Your task to perform on an android device: Search for pizza restaurants on Maps Image 0: 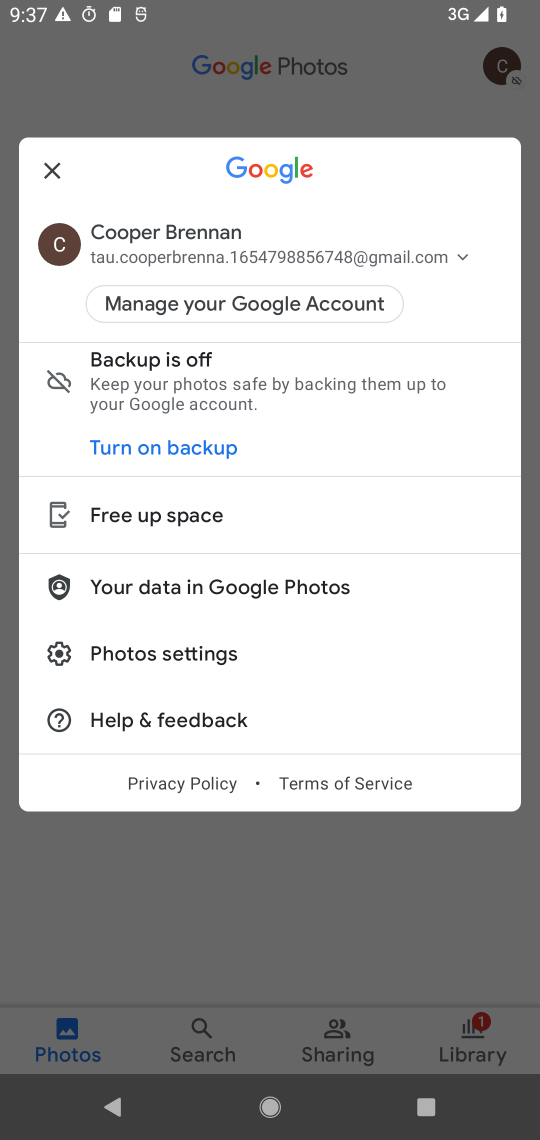
Step 0: press home button
Your task to perform on an android device: Search for pizza restaurants on Maps Image 1: 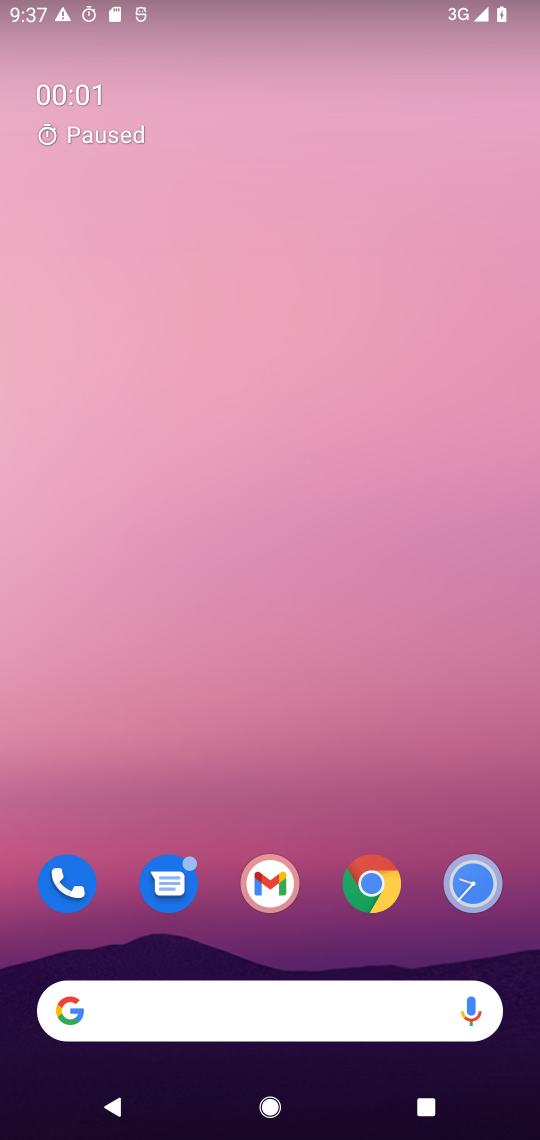
Step 1: drag from (25, 1110) to (228, 754)
Your task to perform on an android device: Search for pizza restaurants on Maps Image 2: 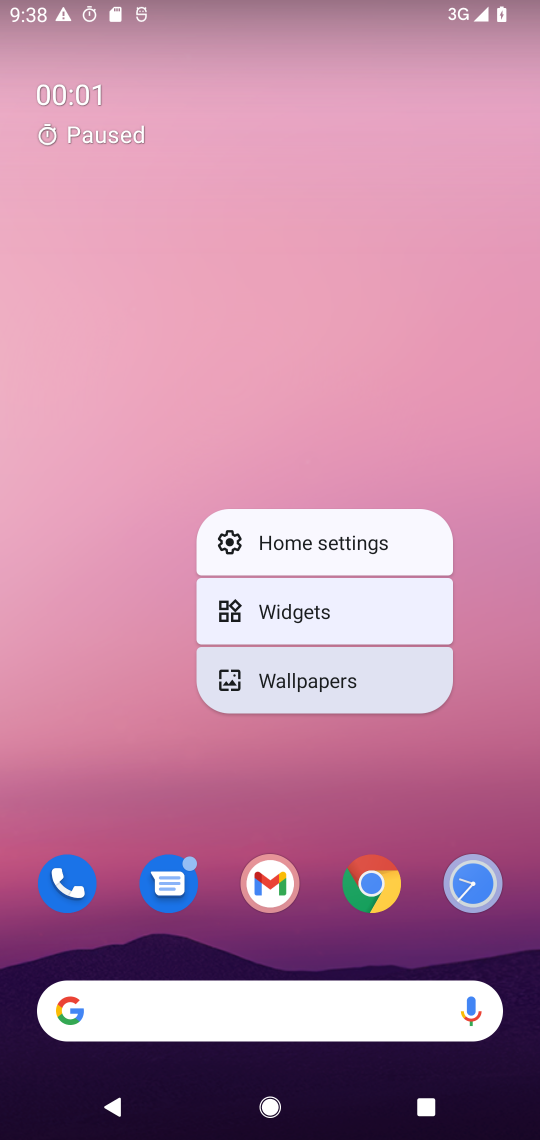
Step 2: drag from (63, 1060) to (0, 88)
Your task to perform on an android device: Search for pizza restaurants on Maps Image 3: 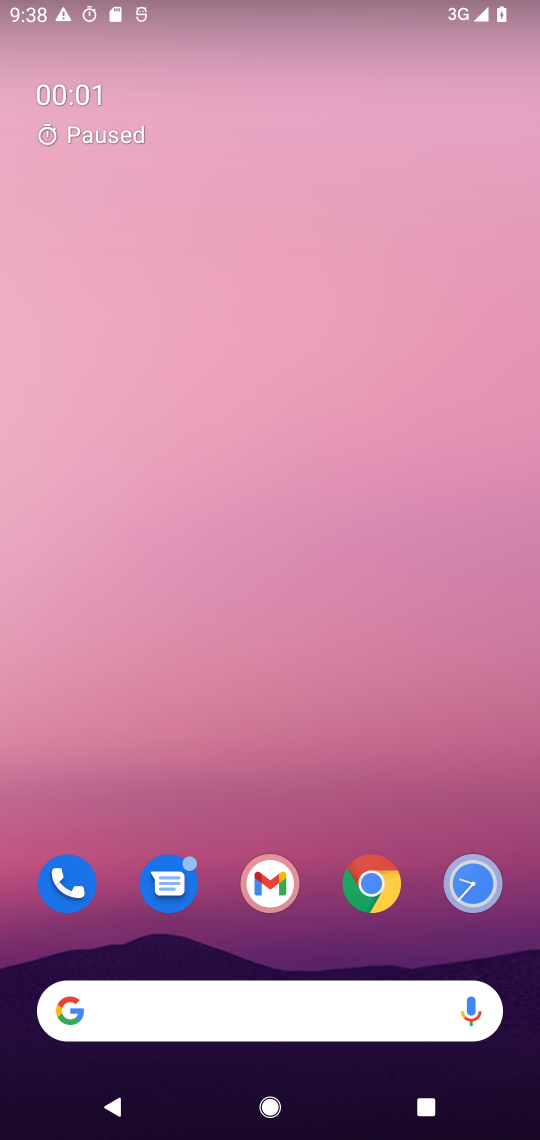
Step 3: drag from (65, 1115) to (526, 314)
Your task to perform on an android device: Search for pizza restaurants on Maps Image 4: 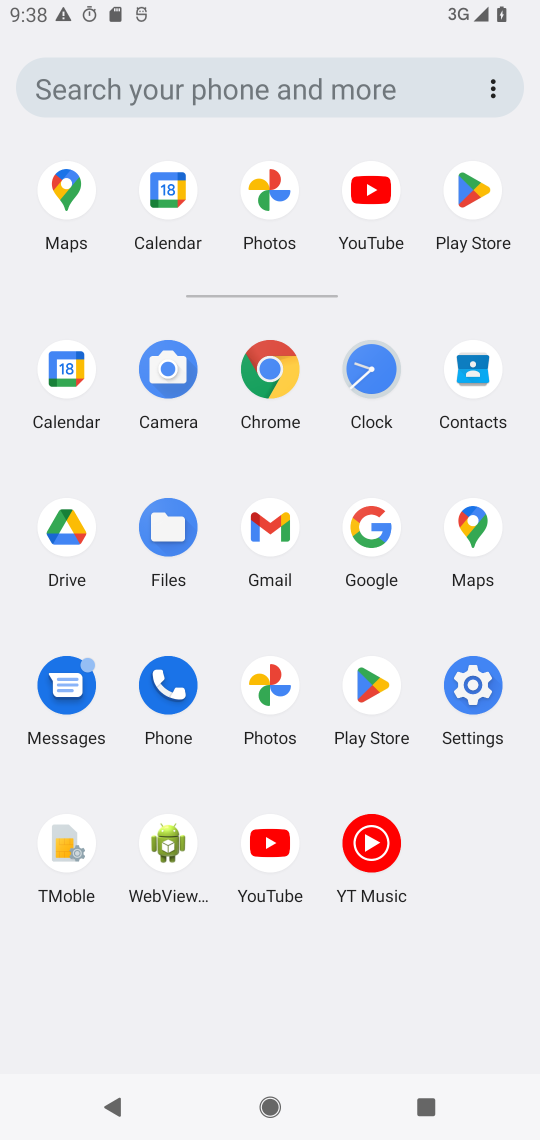
Step 4: click (463, 539)
Your task to perform on an android device: Search for pizza restaurants on Maps Image 5: 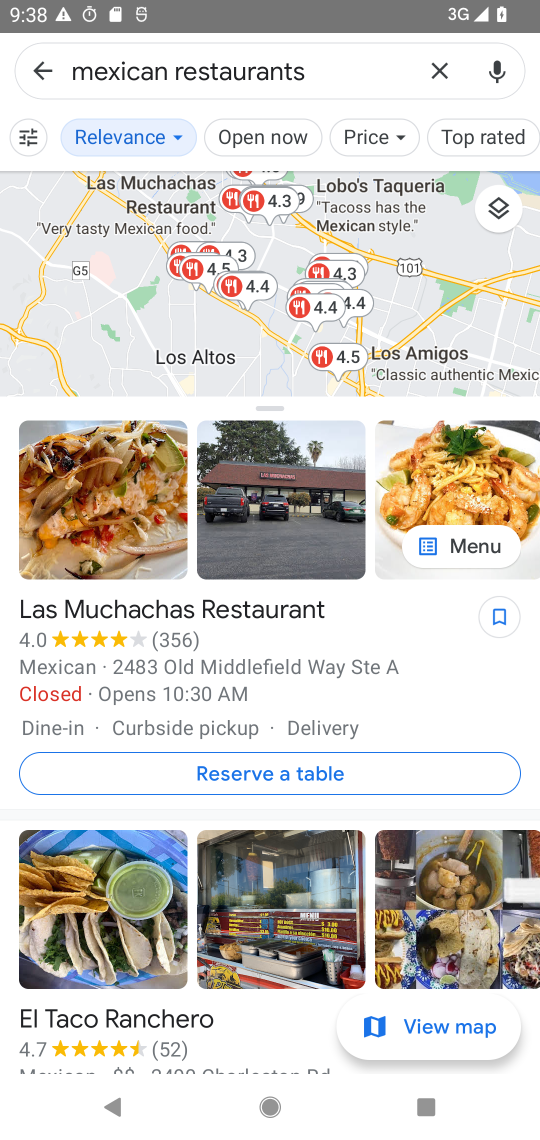
Step 5: press back button
Your task to perform on an android device: Search for pizza restaurants on Maps Image 6: 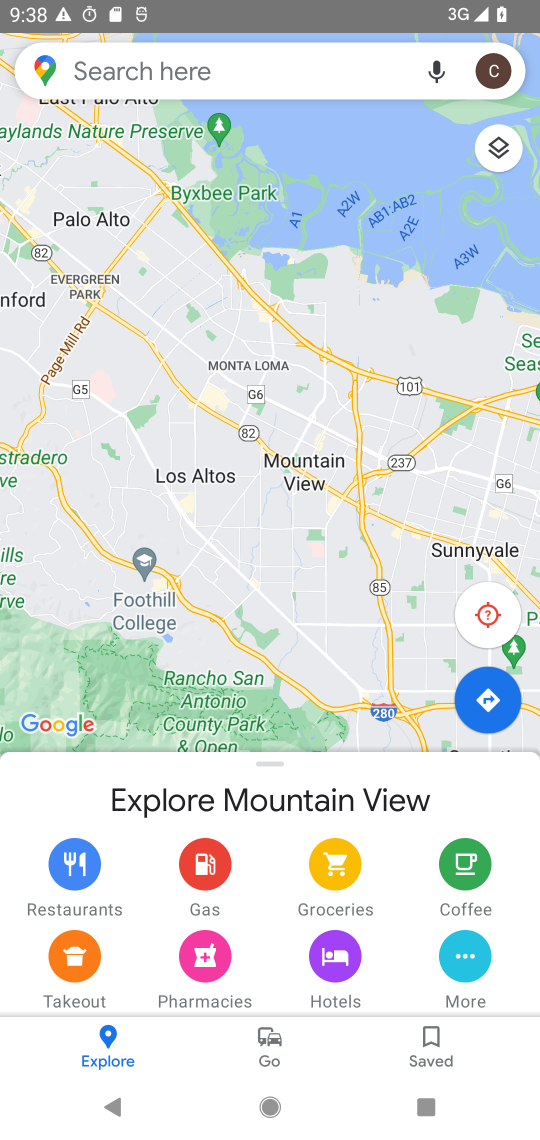
Step 6: click (158, 66)
Your task to perform on an android device: Search for pizza restaurants on Maps Image 7: 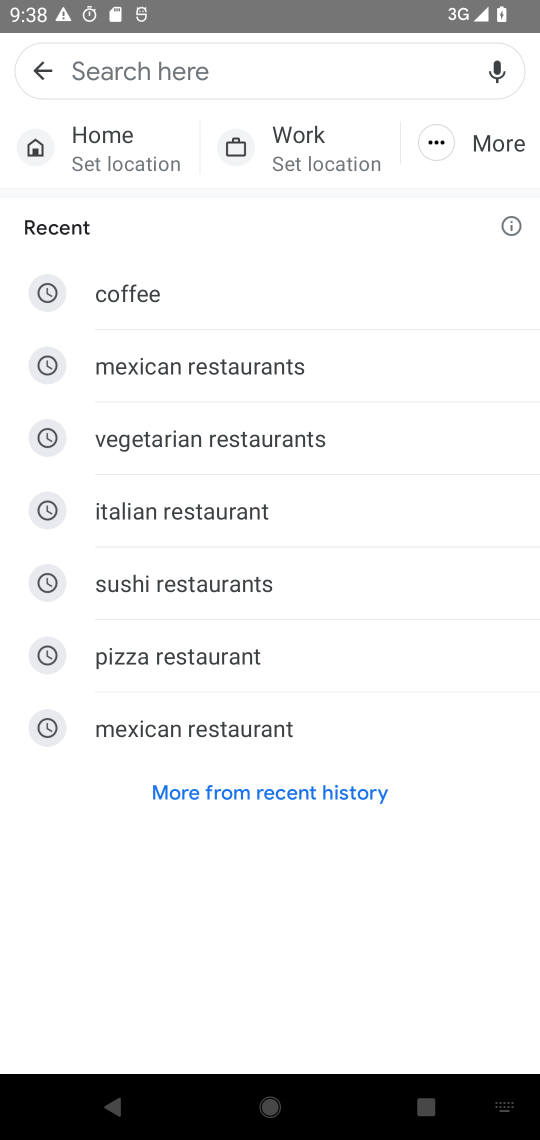
Step 7: type "pizza restaurants"
Your task to perform on an android device: Search for pizza restaurants on Maps Image 8: 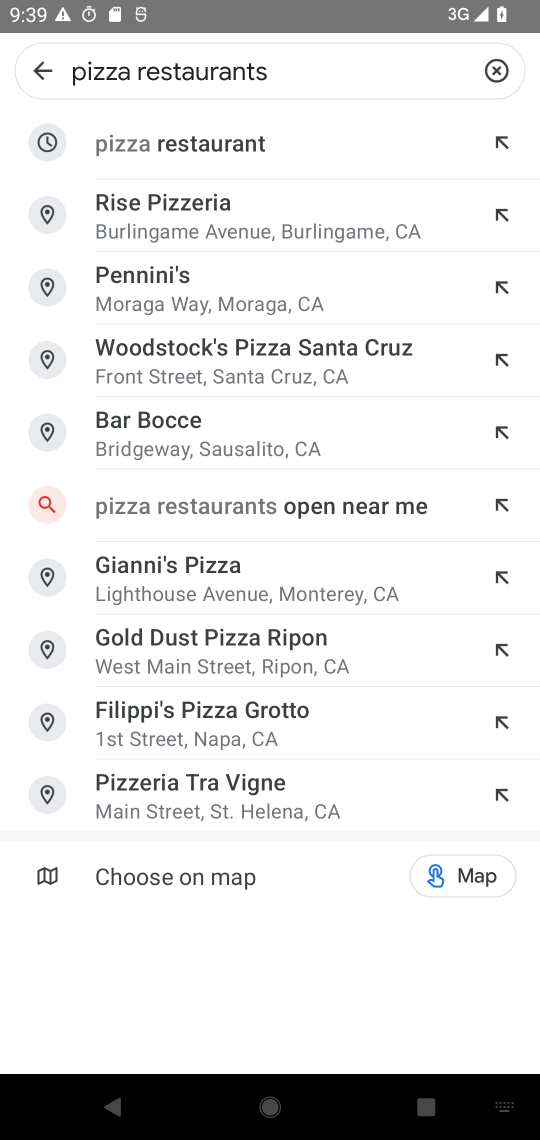
Step 8: task complete